Your task to perform on an android device: turn off sleep mode Image 0: 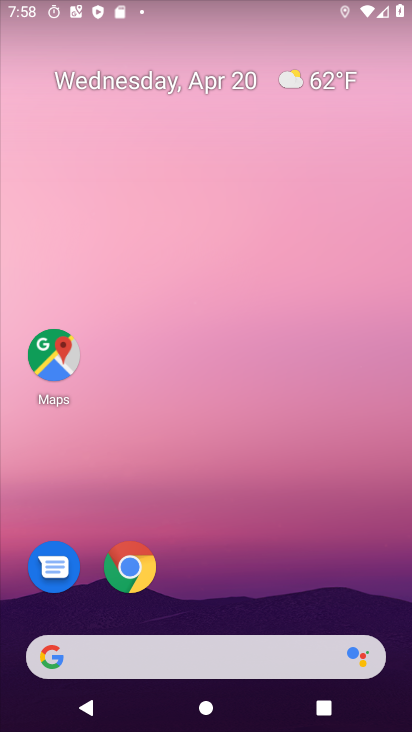
Step 0: drag from (380, 620) to (364, 0)
Your task to perform on an android device: turn off sleep mode Image 1: 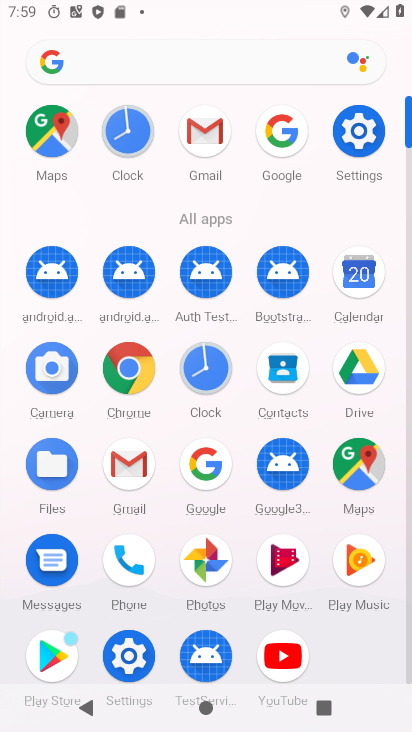
Step 1: click (352, 125)
Your task to perform on an android device: turn off sleep mode Image 2: 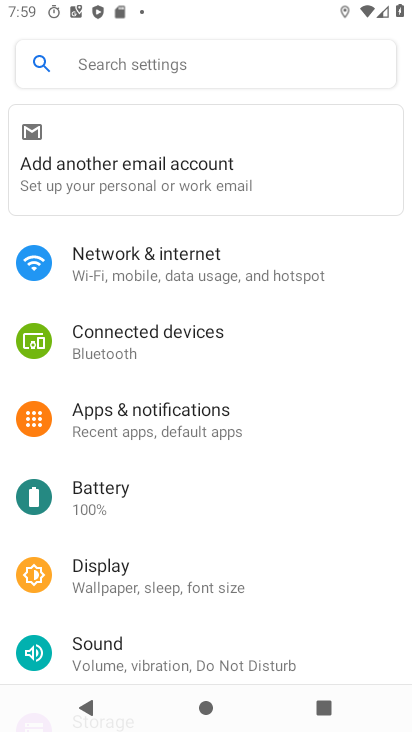
Step 2: click (92, 576)
Your task to perform on an android device: turn off sleep mode Image 3: 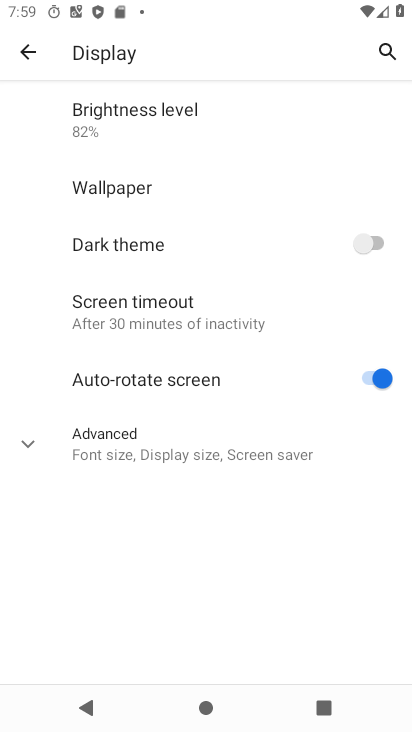
Step 3: click (26, 450)
Your task to perform on an android device: turn off sleep mode Image 4: 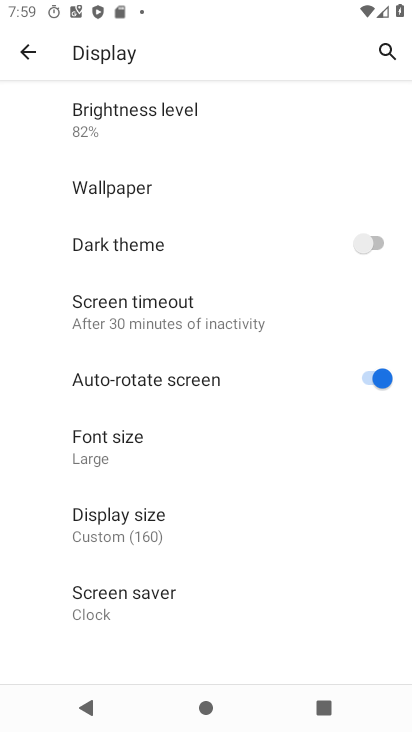
Step 4: task complete